Your task to perform on an android device: Show me recent news Image 0: 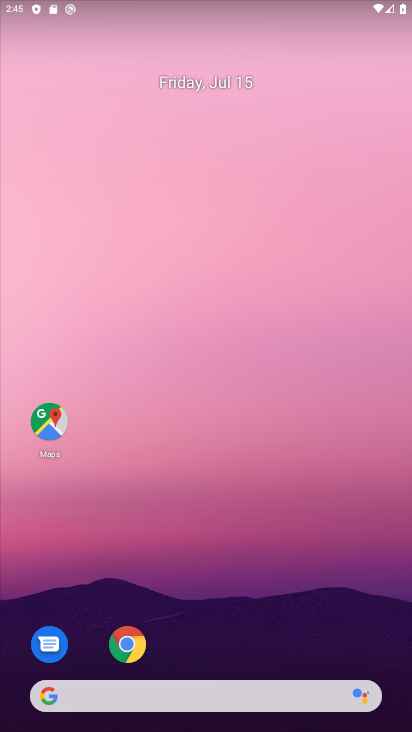
Step 0: drag from (205, 578) to (331, 1)
Your task to perform on an android device: Show me recent news Image 1: 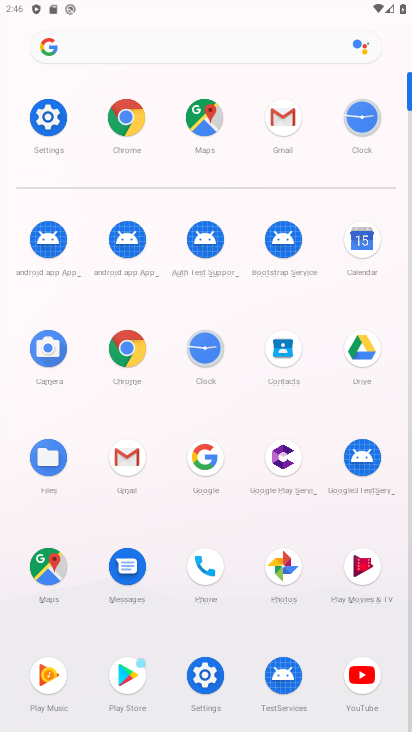
Step 1: click (164, 58)
Your task to perform on an android device: Show me recent news Image 2: 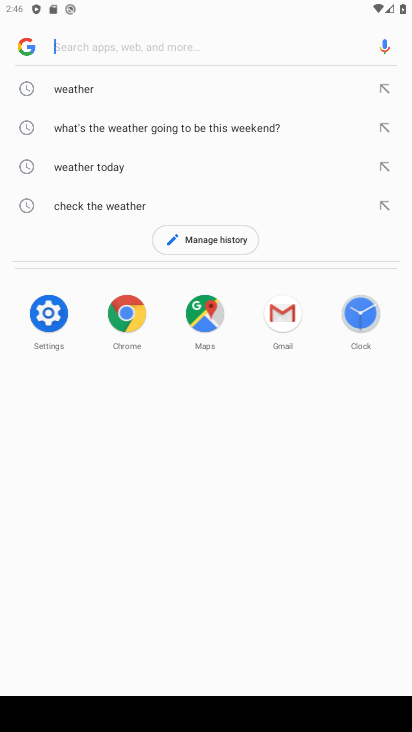
Step 2: type "recent news"
Your task to perform on an android device: Show me recent news Image 3: 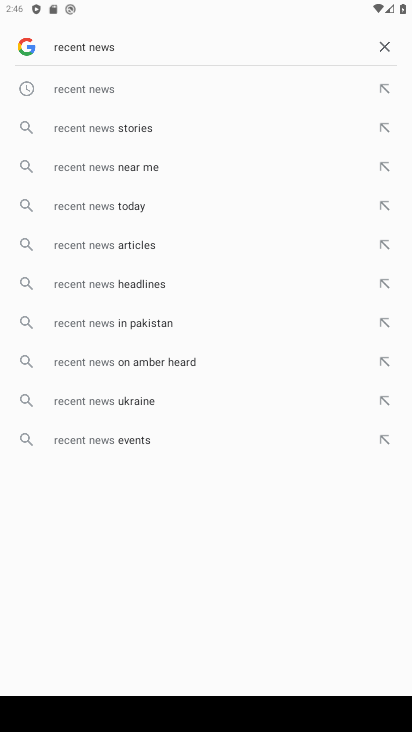
Step 3: click (106, 91)
Your task to perform on an android device: Show me recent news Image 4: 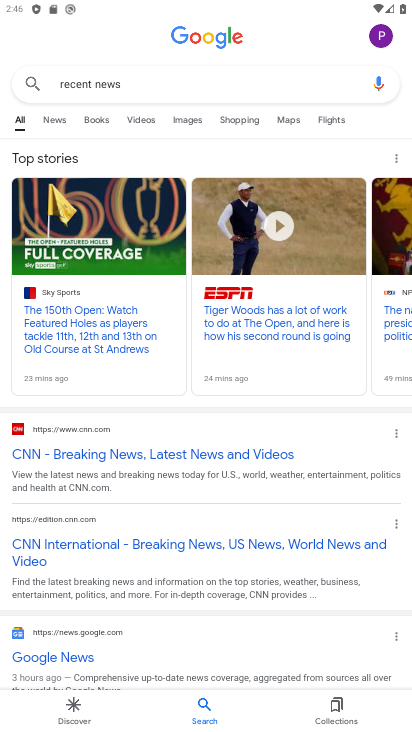
Step 4: task complete